Your task to perform on an android device: open device folders in google photos Image 0: 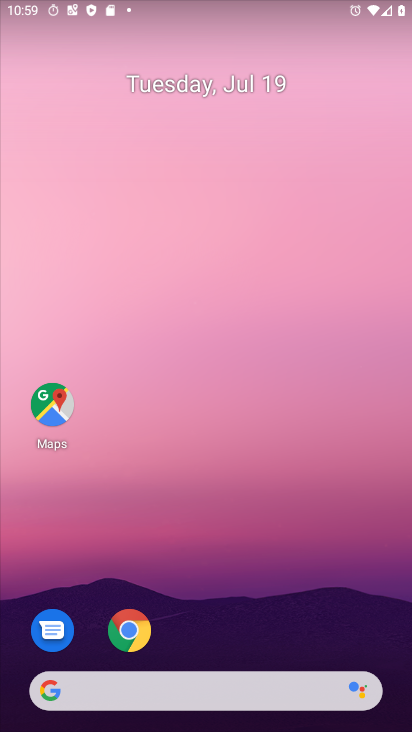
Step 0: press home button
Your task to perform on an android device: open device folders in google photos Image 1: 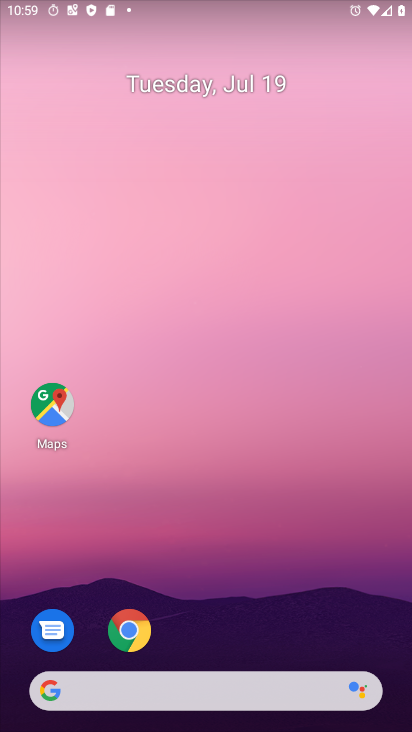
Step 1: drag from (265, 607) to (218, 145)
Your task to perform on an android device: open device folders in google photos Image 2: 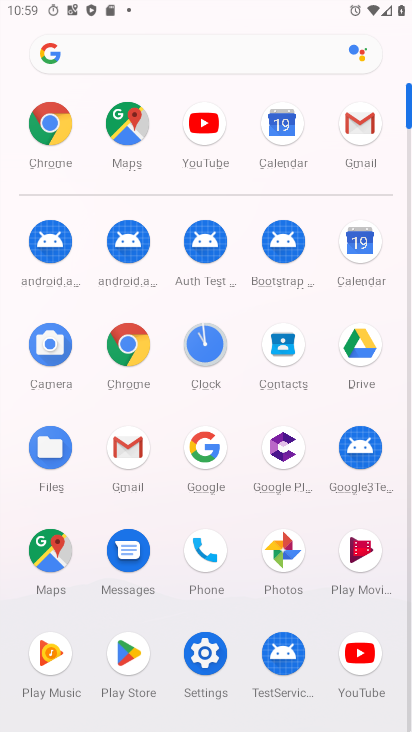
Step 2: click (286, 552)
Your task to perform on an android device: open device folders in google photos Image 3: 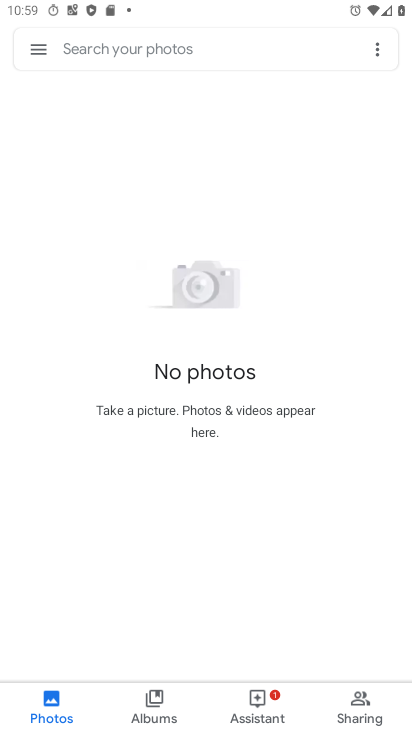
Step 3: click (104, 47)
Your task to perform on an android device: open device folders in google photos Image 4: 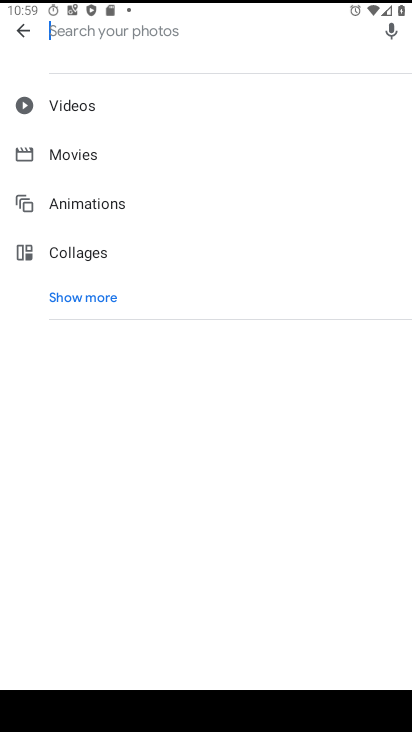
Step 4: type "device folders"
Your task to perform on an android device: open device folders in google photos Image 5: 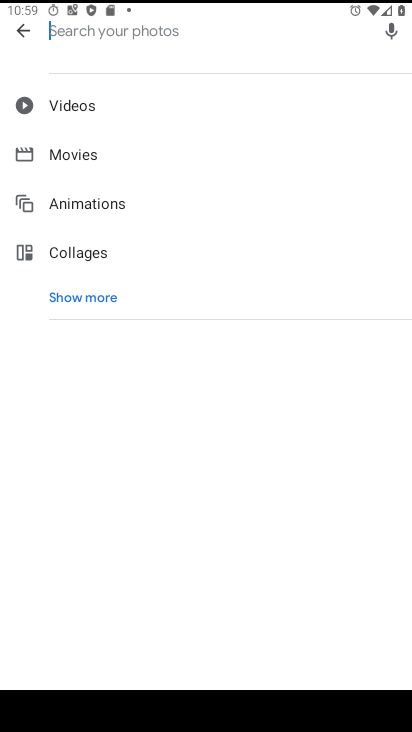
Step 5: click (106, 26)
Your task to perform on an android device: open device folders in google photos Image 6: 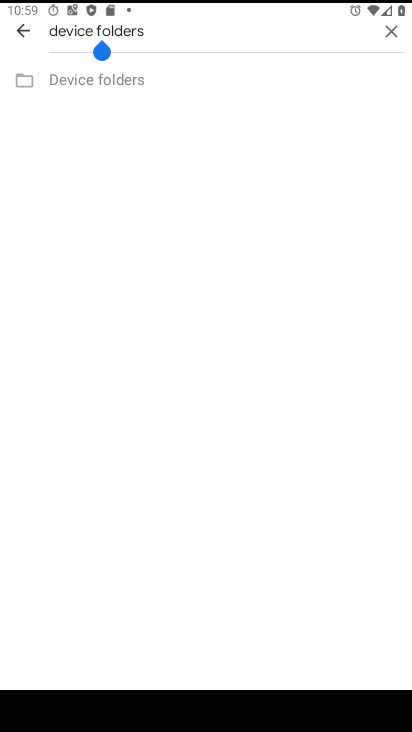
Step 6: press enter
Your task to perform on an android device: open device folders in google photos Image 7: 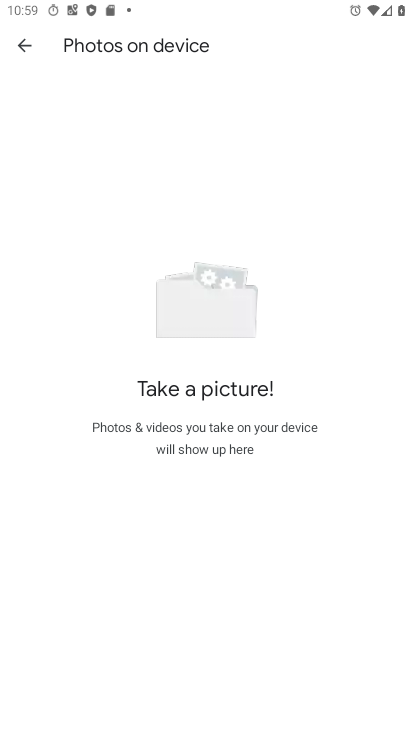
Step 7: click (24, 41)
Your task to perform on an android device: open device folders in google photos Image 8: 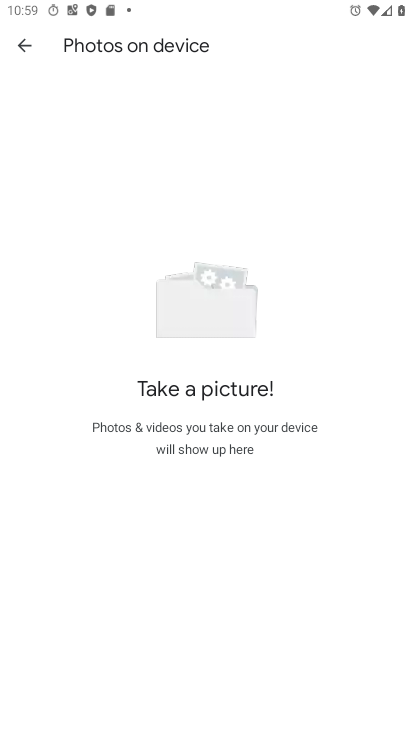
Step 8: click (23, 42)
Your task to perform on an android device: open device folders in google photos Image 9: 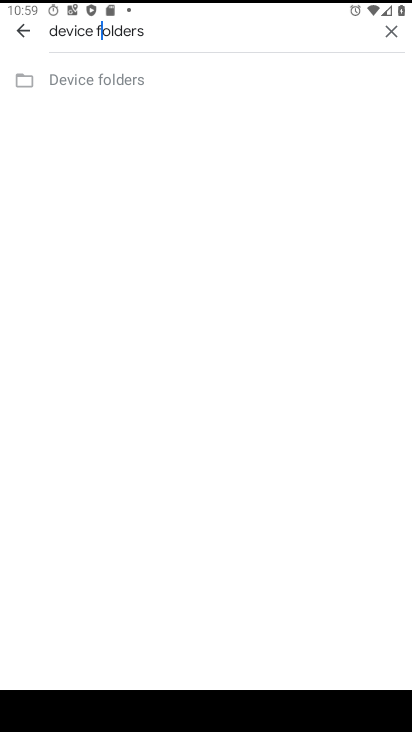
Step 9: click (83, 71)
Your task to perform on an android device: open device folders in google photos Image 10: 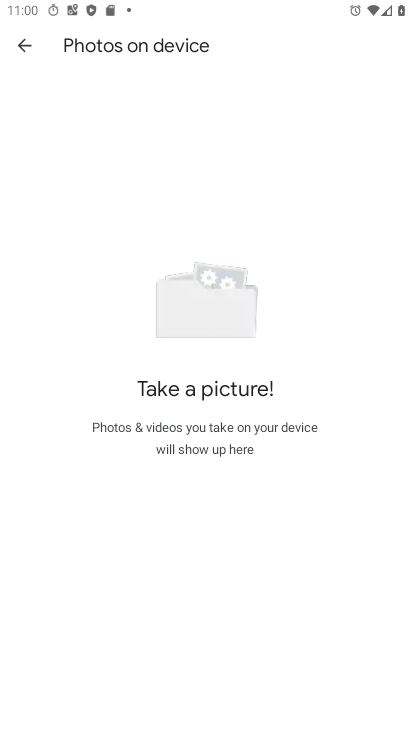
Step 10: task complete